Your task to perform on an android device: Open Chrome and go to settings Image 0: 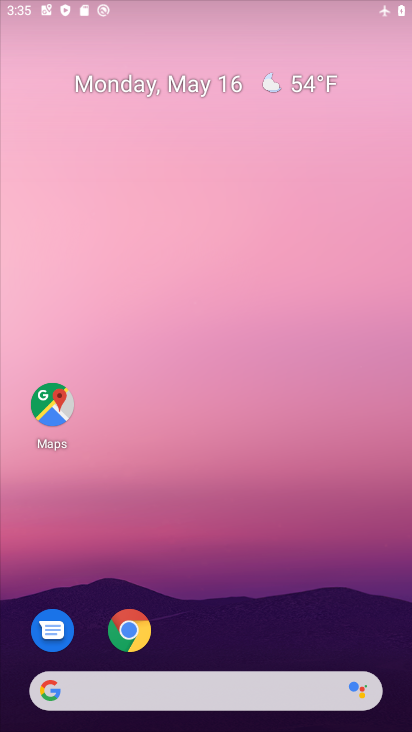
Step 0: drag from (218, 642) to (100, 231)
Your task to perform on an android device: Open Chrome and go to settings Image 1: 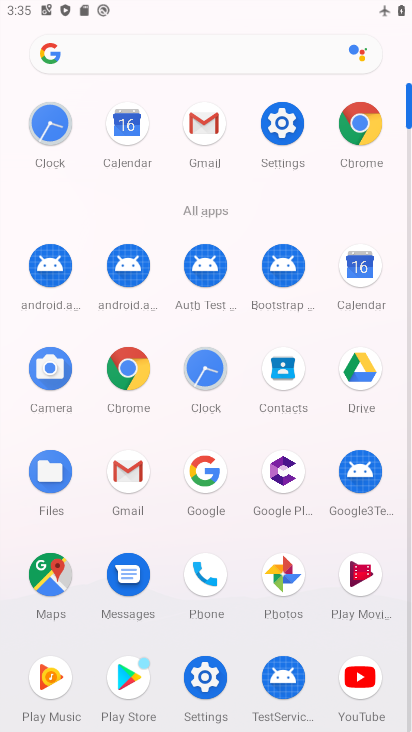
Step 1: click (356, 142)
Your task to perform on an android device: Open Chrome and go to settings Image 2: 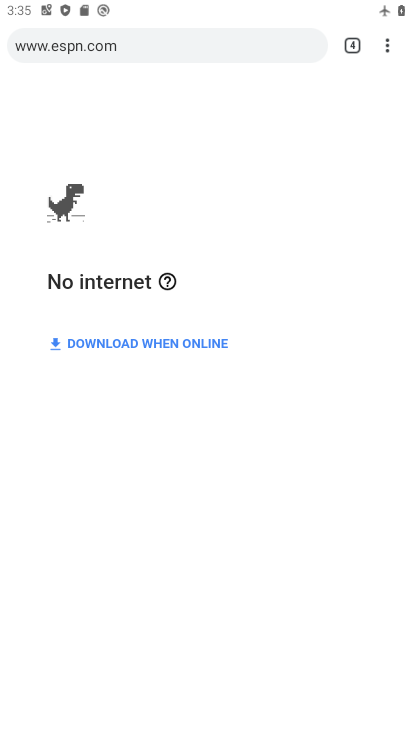
Step 2: click (382, 54)
Your task to perform on an android device: Open Chrome and go to settings Image 3: 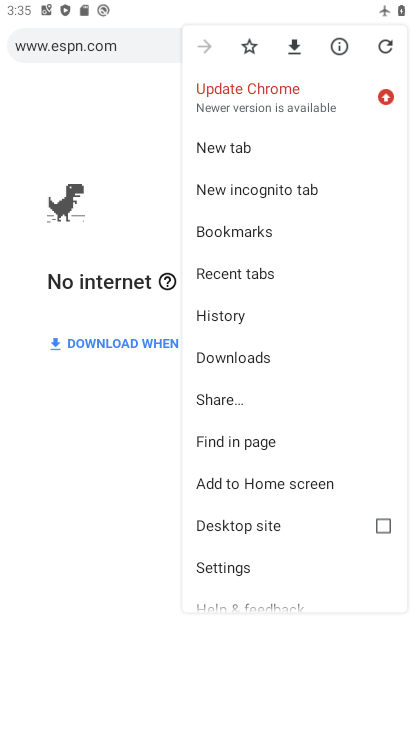
Step 3: click (270, 569)
Your task to perform on an android device: Open Chrome and go to settings Image 4: 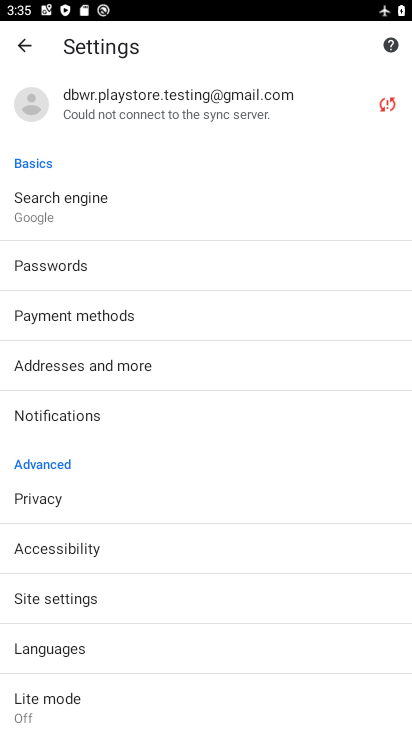
Step 4: task complete